Your task to perform on an android device: open app "Truecaller" Image 0: 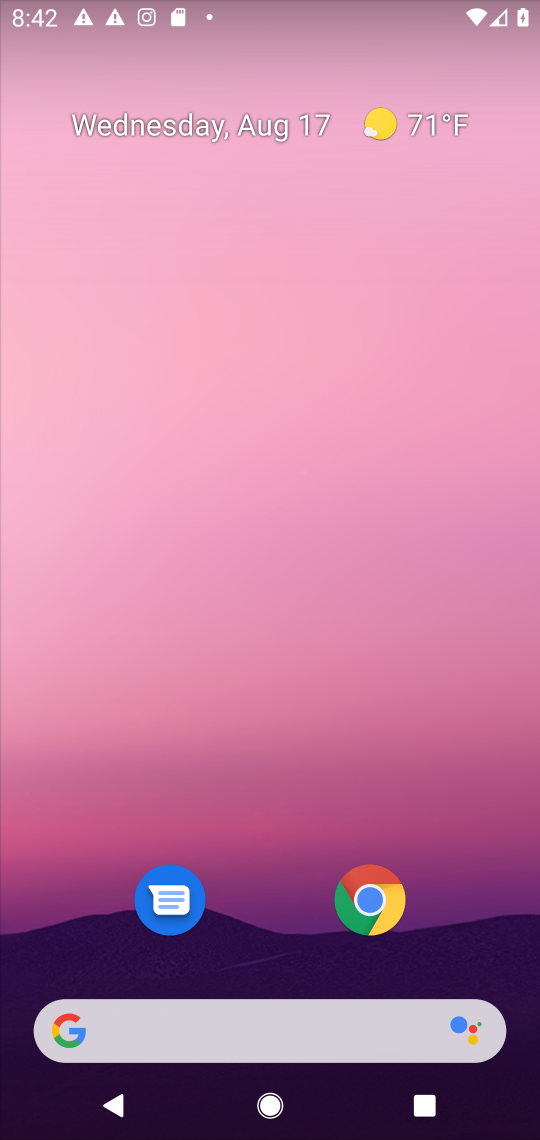
Step 0: drag from (291, 781) to (384, 97)
Your task to perform on an android device: open app "Truecaller" Image 1: 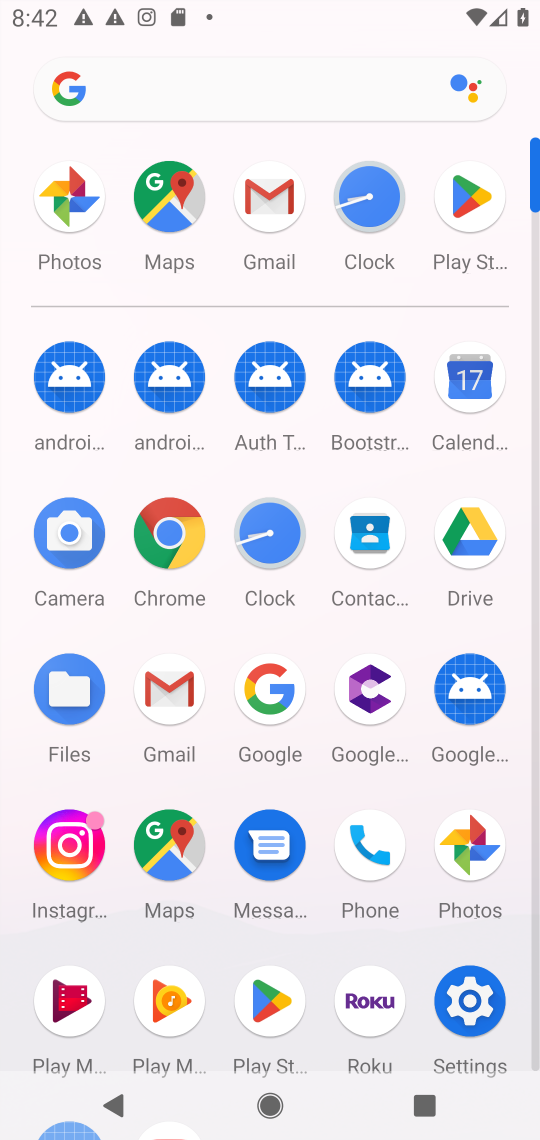
Step 1: click (464, 182)
Your task to perform on an android device: open app "Truecaller" Image 2: 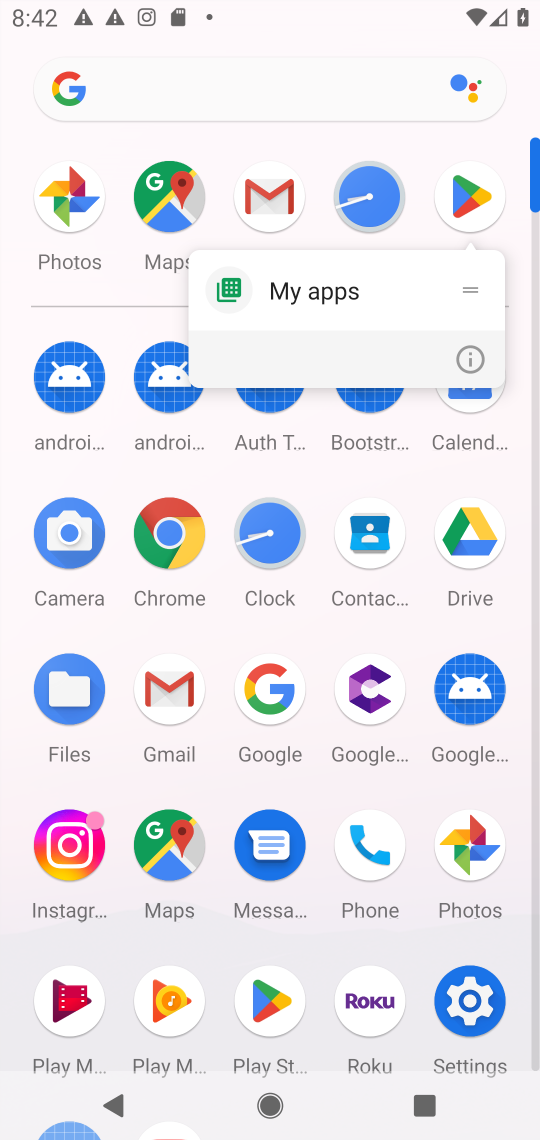
Step 2: click (464, 182)
Your task to perform on an android device: open app "Truecaller" Image 3: 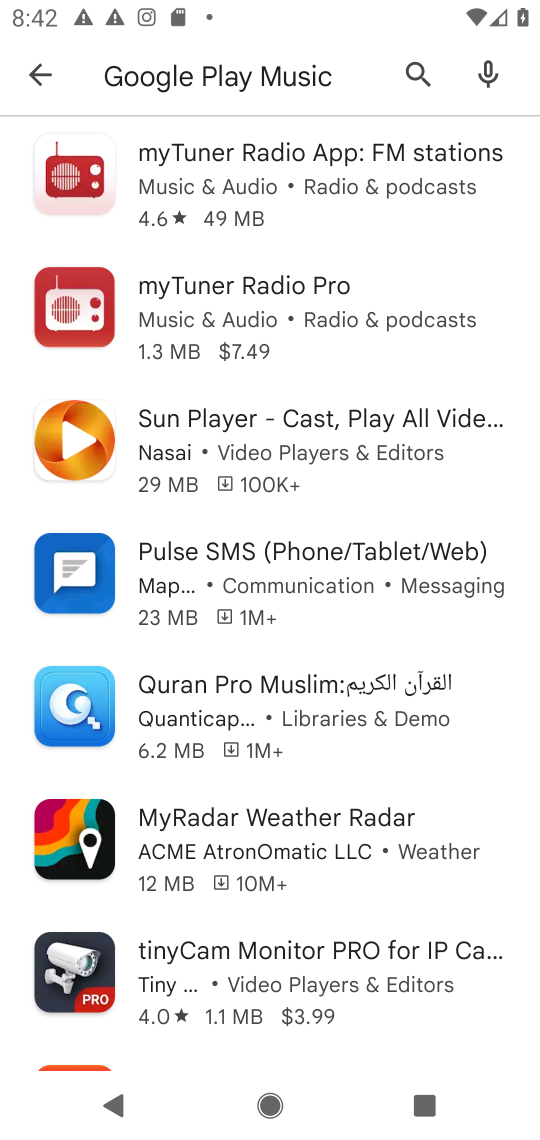
Step 3: click (33, 76)
Your task to perform on an android device: open app "Truecaller" Image 4: 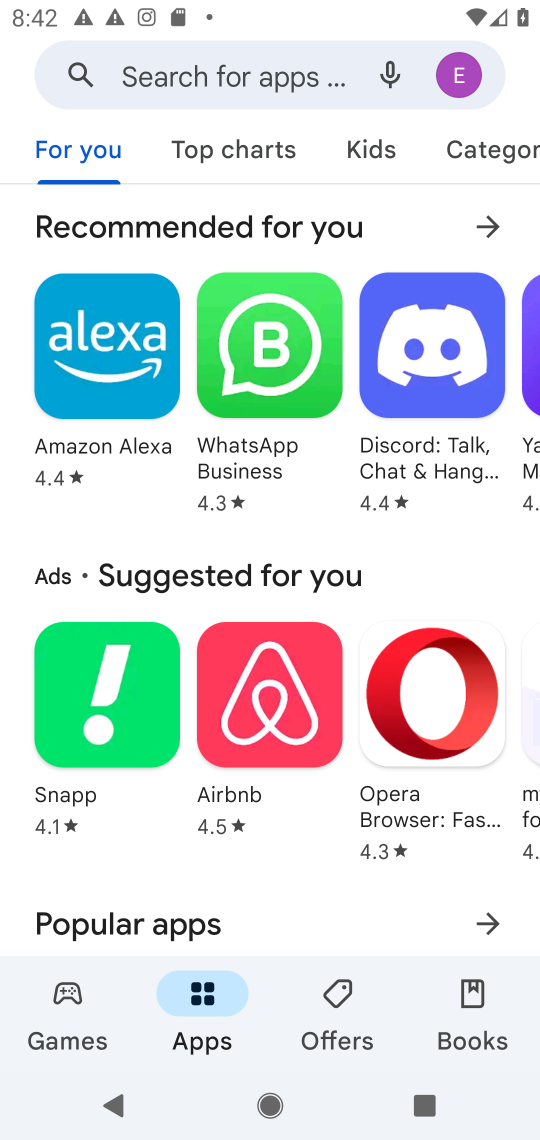
Step 4: click (293, 88)
Your task to perform on an android device: open app "Truecaller" Image 5: 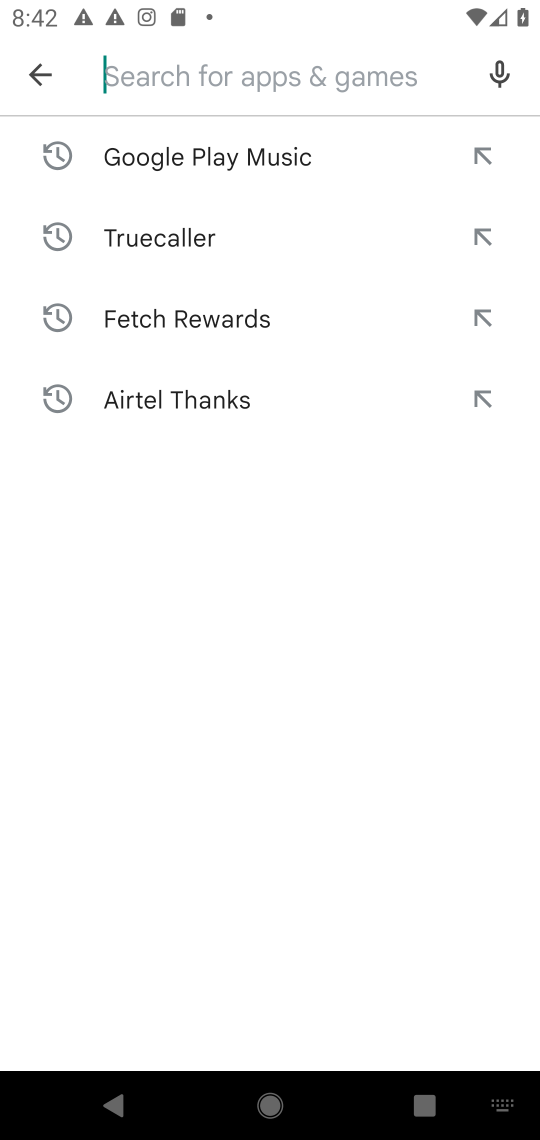
Step 5: click (166, 247)
Your task to perform on an android device: open app "Truecaller" Image 6: 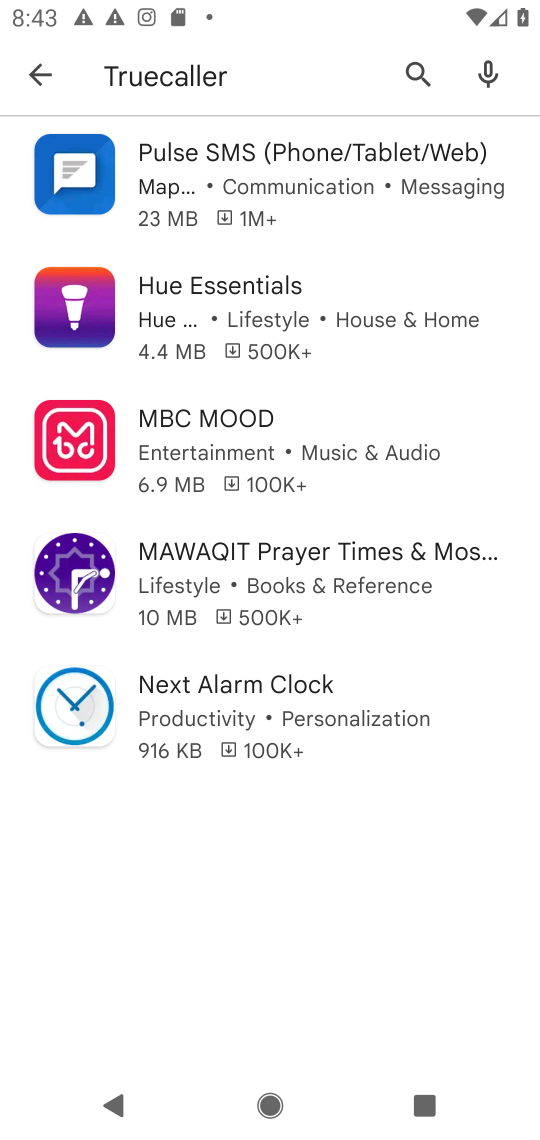
Step 6: task complete